Your task to perform on an android device: Open my contact list Image 0: 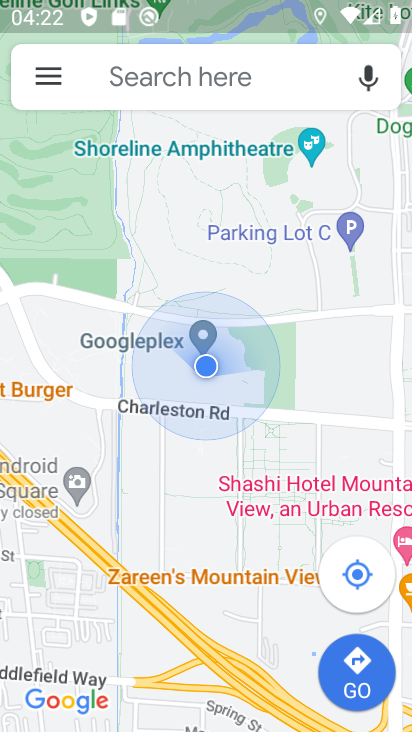
Step 0: press home button
Your task to perform on an android device: Open my contact list Image 1: 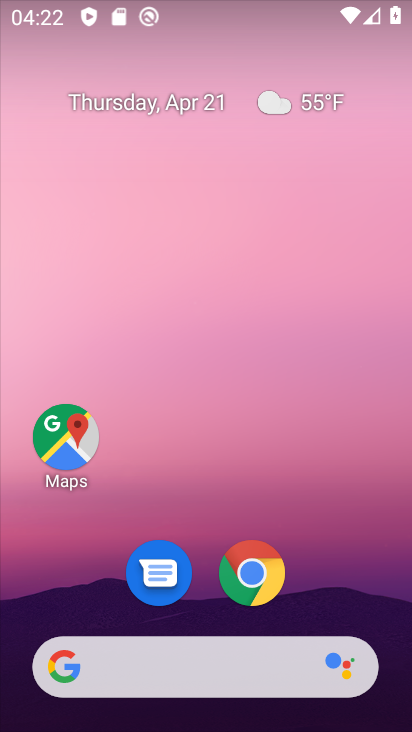
Step 1: drag from (334, 612) to (300, 44)
Your task to perform on an android device: Open my contact list Image 2: 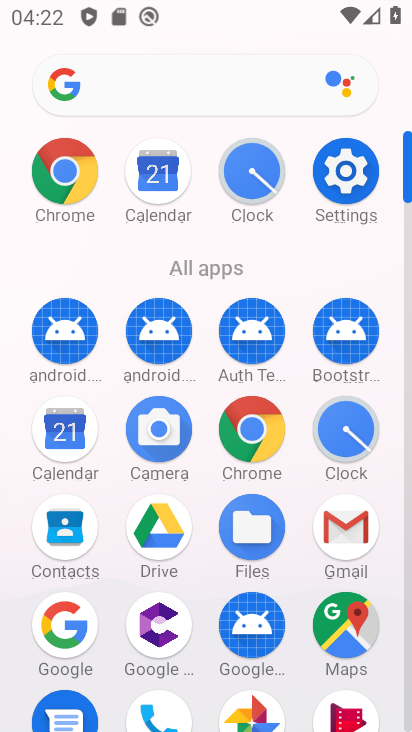
Step 2: click (73, 532)
Your task to perform on an android device: Open my contact list Image 3: 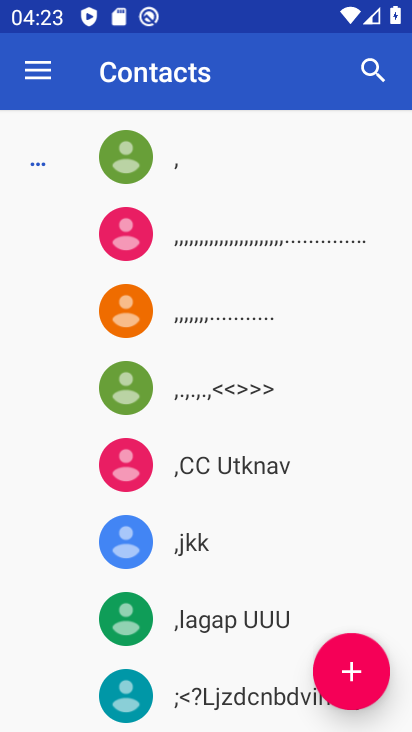
Step 3: task complete